Your task to perform on an android device: uninstall "Firefox Browser" Image 0: 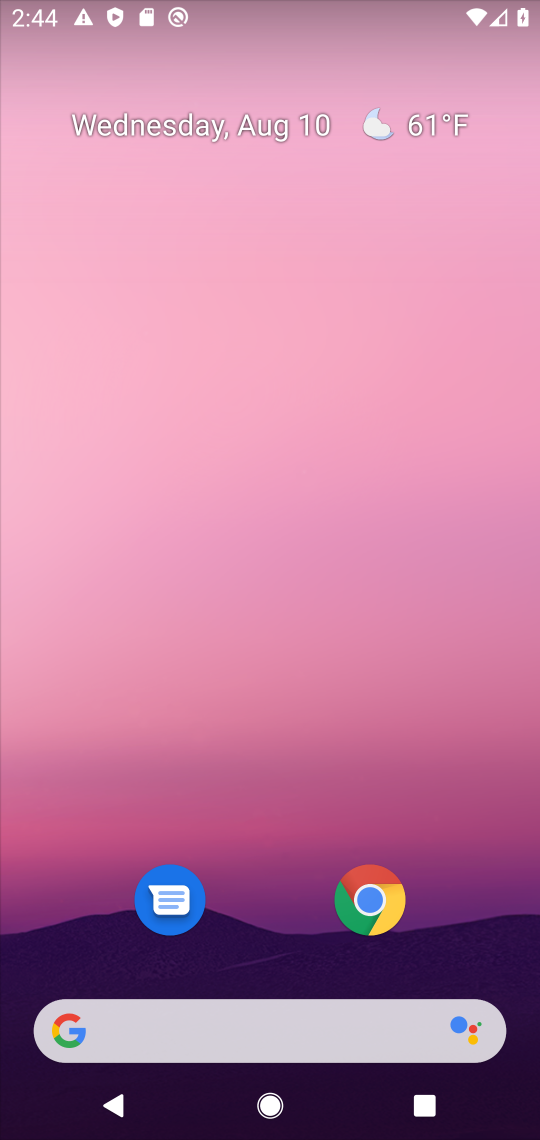
Step 0: drag from (266, 953) to (273, 50)
Your task to perform on an android device: uninstall "Firefox Browser" Image 1: 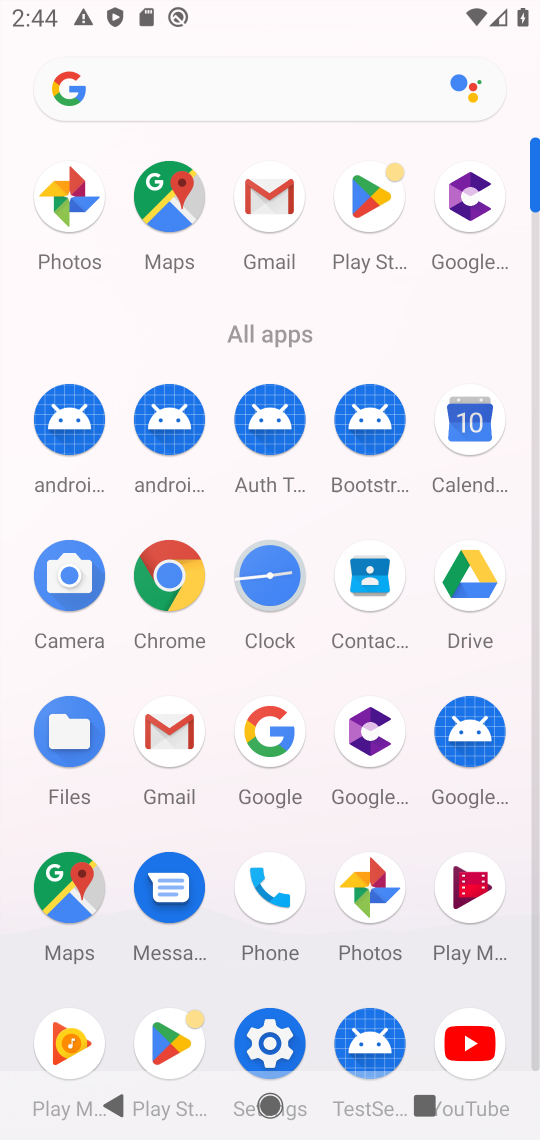
Step 1: click (173, 1065)
Your task to perform on an android device: uninstall "Firefox Browser" Image 2: 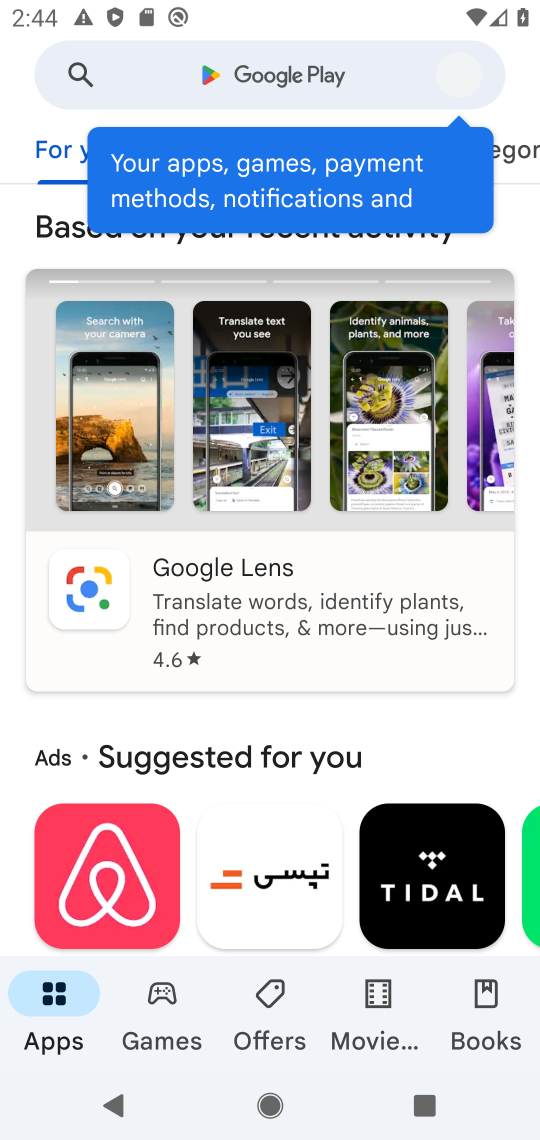
Step 2: click (330, 84)
Your task to perform on an android device: uninstall "Firefox Browser" Image 3: 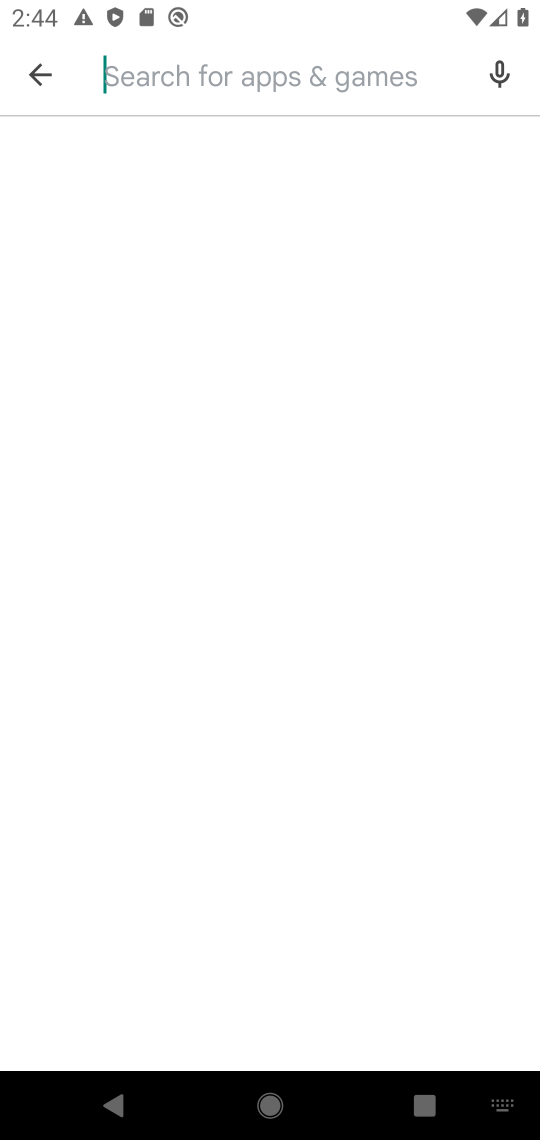
Step 3: type "firefox"
Your task to perform on an android device: uninstall "Firefox Browser" Image 4: 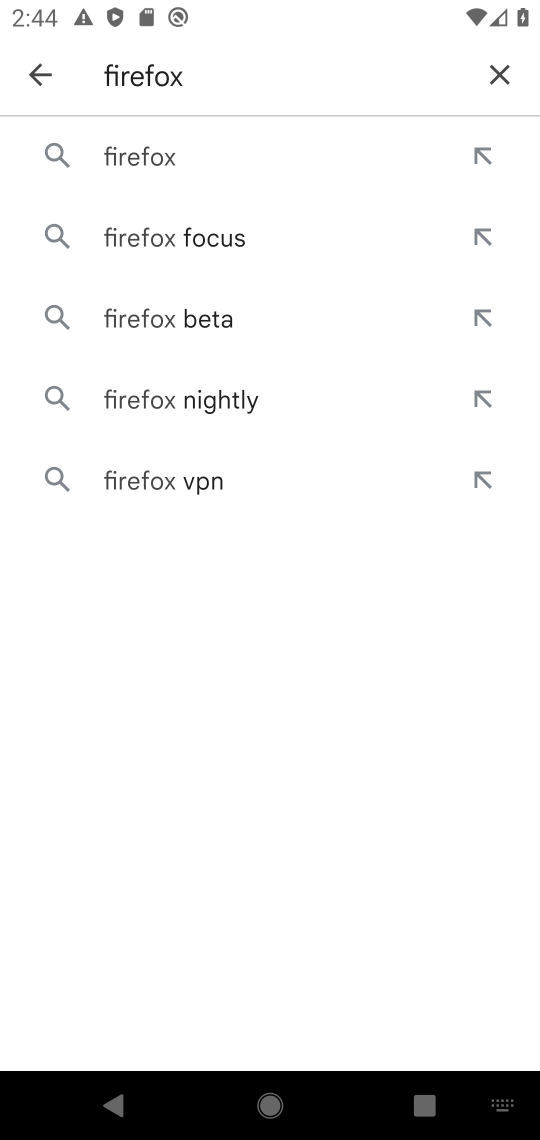
Step 4: click (305, 157)
Your task to perform on an android device: uninstall "Firefox Browser" Image 5: 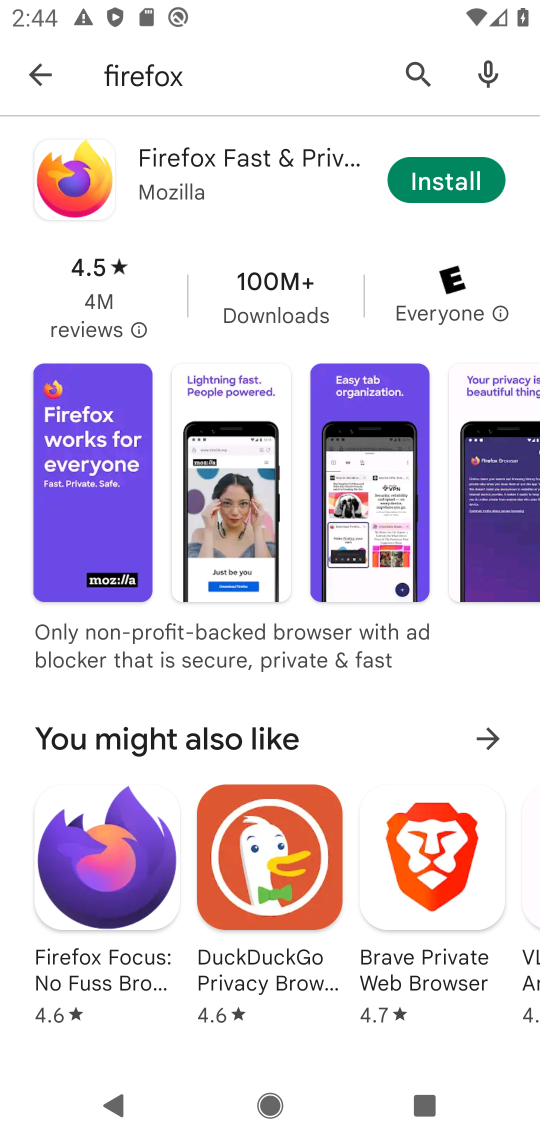
Step 5: click (415, 168)
Your task to perform on an android device: uninstall "Firefox Browser" Image 6: 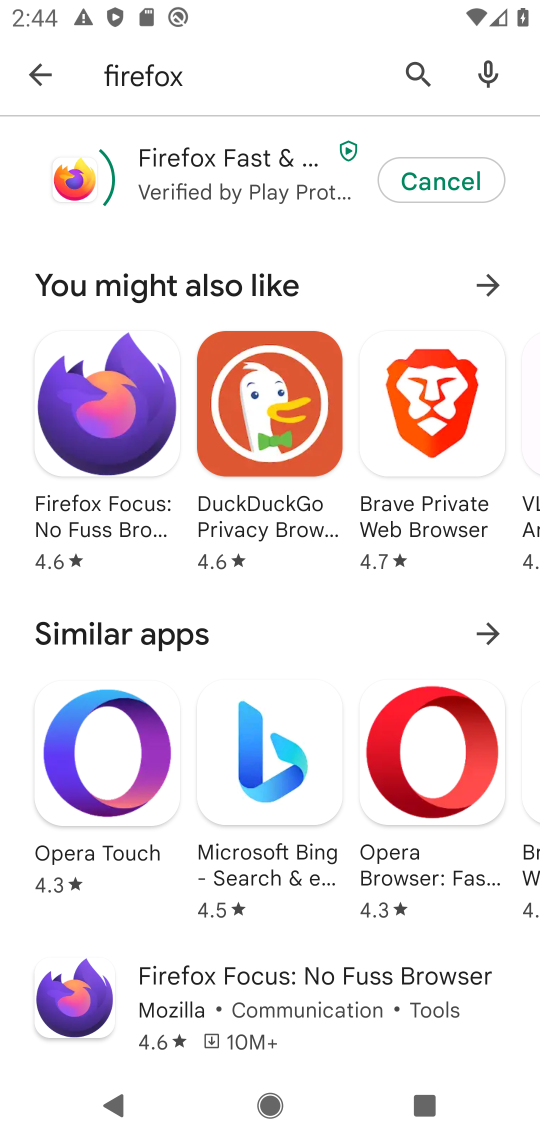
Step 6: task complete